Your task to perform on an android device: set the stopwatch Image 0: 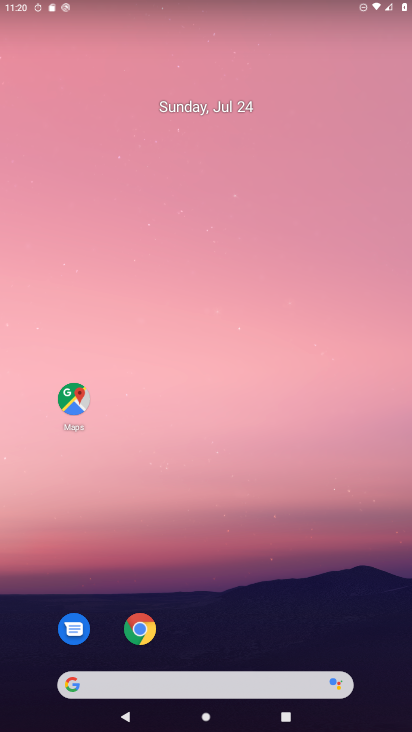
Step 0: drag from (236, 593) to (338, 114)
Your task to perform on an android device: set the stopwatch Image 1: 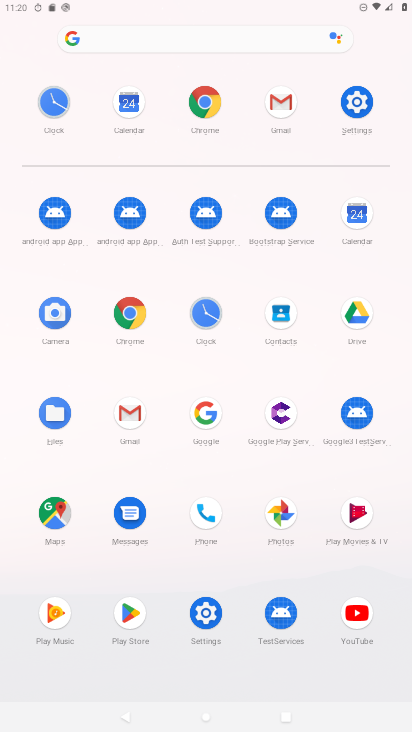
Step 1: click (199, 311)
Your task to perform on an android device: set the stopwatch Image 2: 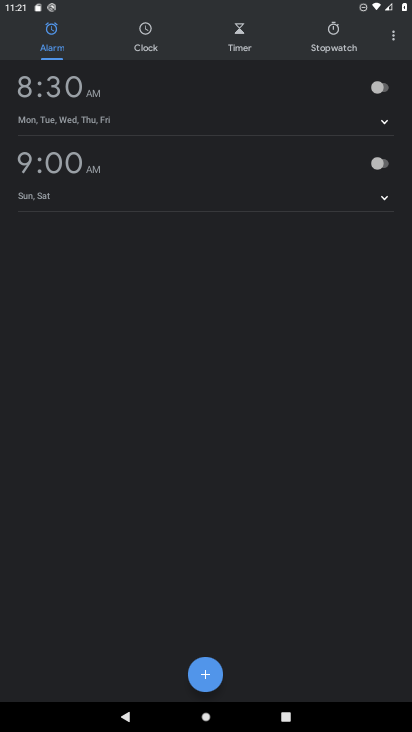
Step 2: click (327, 38)
Your task to perform on an android device: set the stopwatch Image 3: 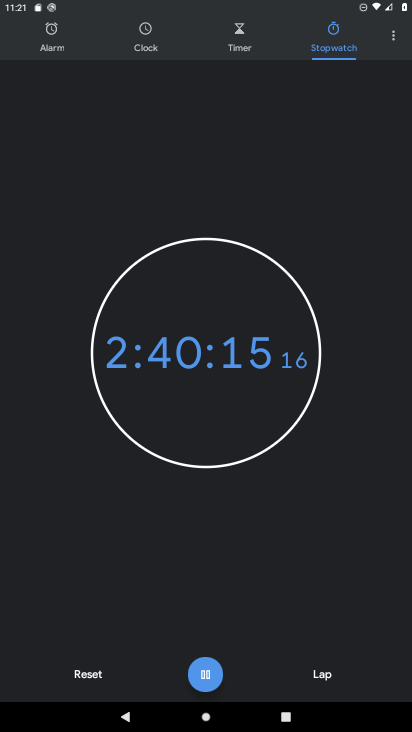
Step 3: task complete